Your task to perform on an android device: Open Chrome and go to settings Image 0: 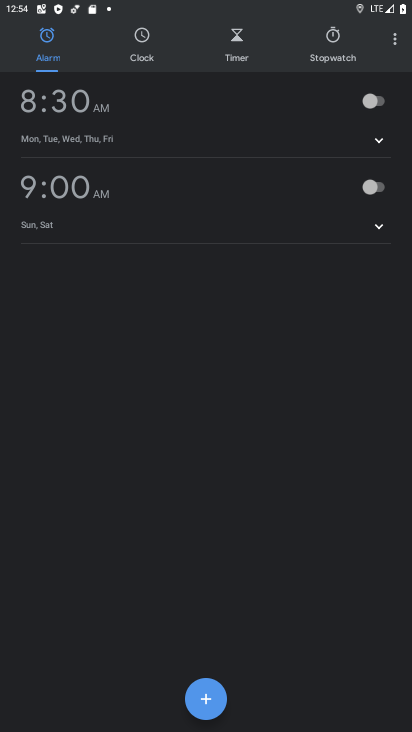
Step 0: press home button
Your task to perform on an android device: Open Chrome and go to settings Image 1: 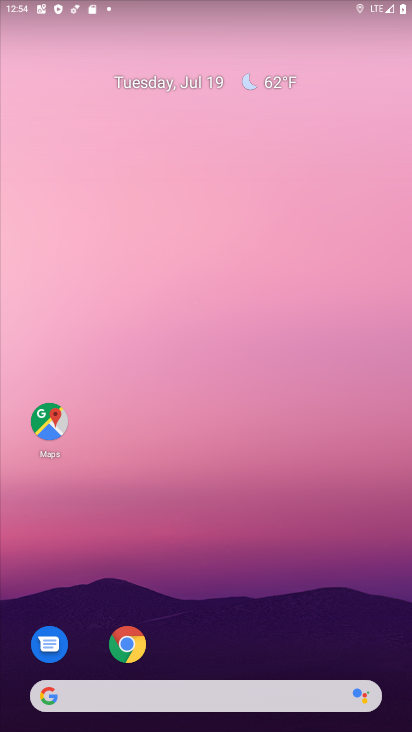
Step 1: click (125, 646)
Your task to perform on an android device: Open Chrome and go to settings Image 2: 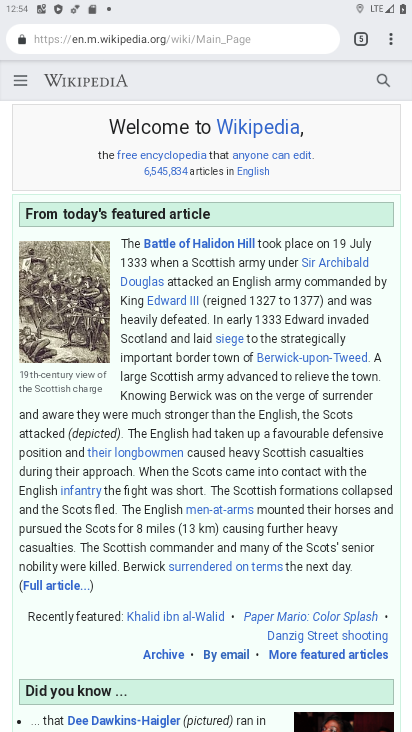
Step 2: click (390, 34)
Your task to perform on an android device: Open Chrome and go to settings Image 3: 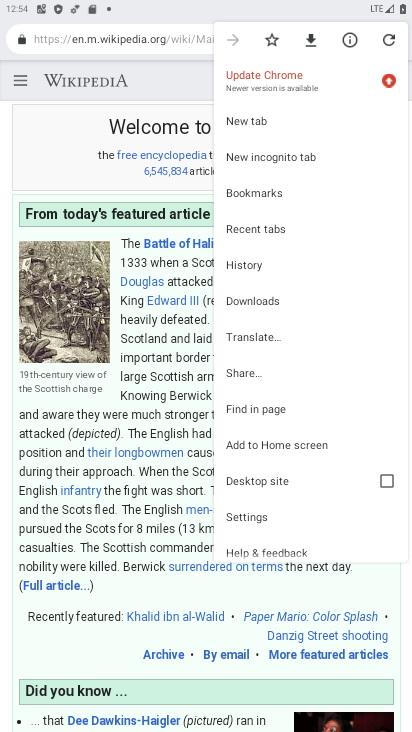
Step 3: click (256, 512)
Your task to perform on an android device: Open Chrome and go to settings Image 4: 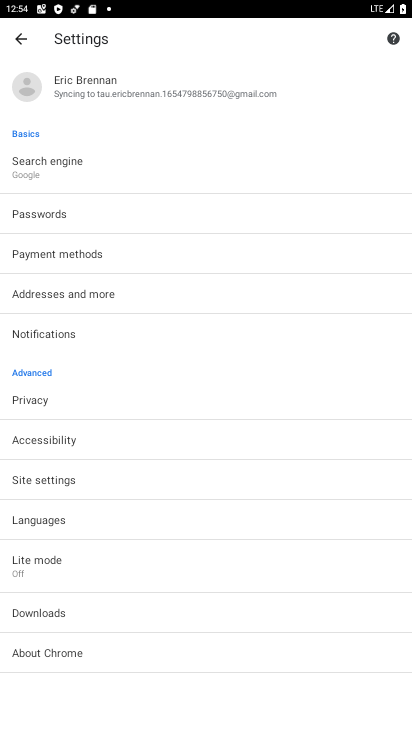
Step 4: task complete